Your task to perform on an android device: Go to display settings Image 0: 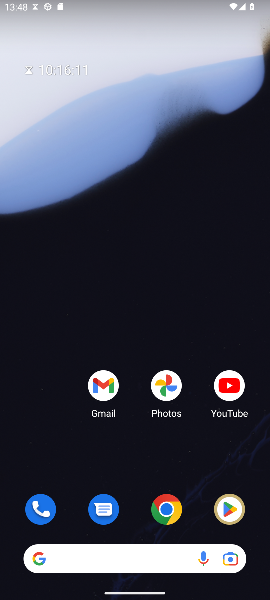
Step 0: press home button
Your task to perform on an android device: Go to display settings Image 1: 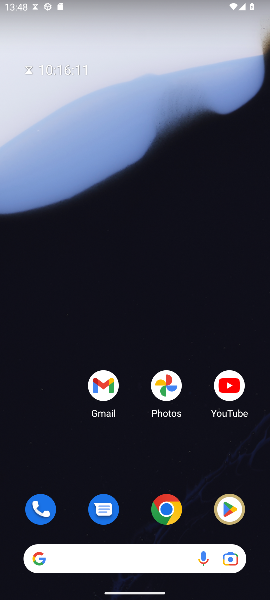
Step 1: drag from (137, 509) to (238, 157)
Your task to perform on an android device: Go to display settings Image 2: 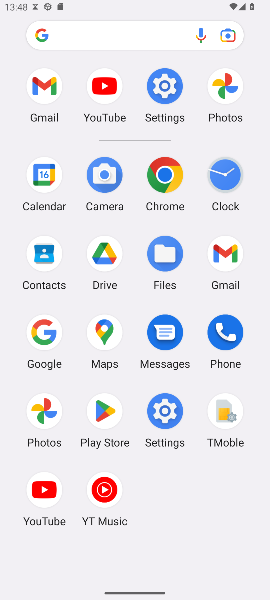
Step 2: click (168, 87)
Your task to perform on an android device: Go to display settings Image 3: 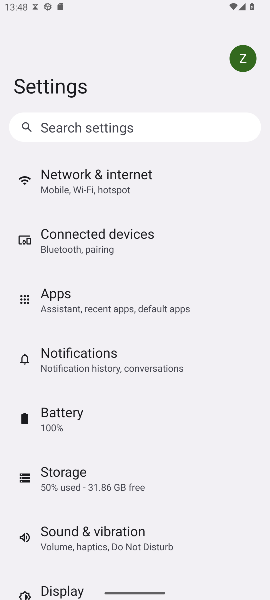
Step 3: drag from (219, 487) to (245, 256)
Your task to perform on an android device: Go to display settings Image 4: 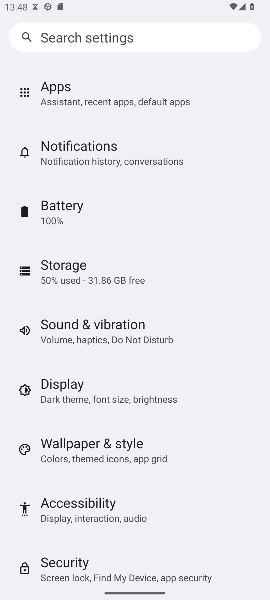
Step 4: click (61, 401)
Your task to perform on an android device: Go to display settings Image 5: 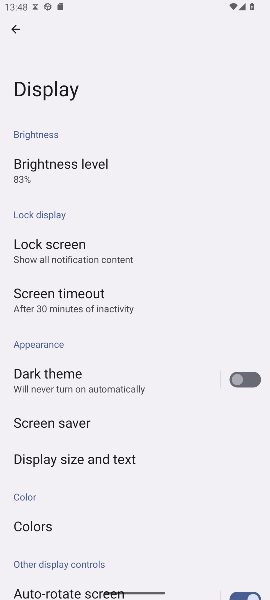
Step 5: task complete